Your task to perform on an android device: Search for sushi restaurants on Maps Image 0: 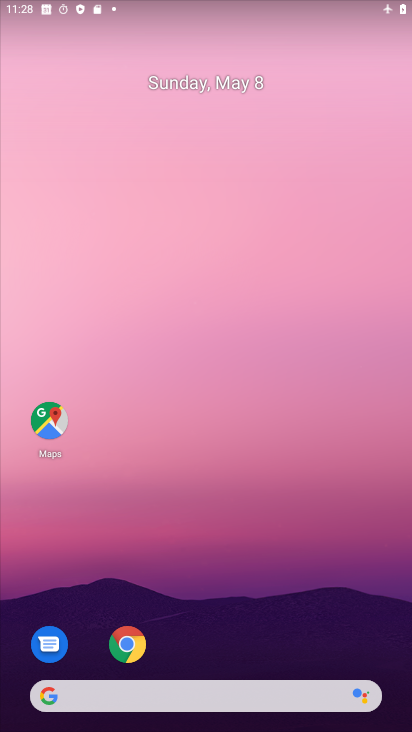
Step 0: drag from (204, 588) to (196, 262)
Your task to perform on an android device: Search for sushi restaurants on Maps Image 1: 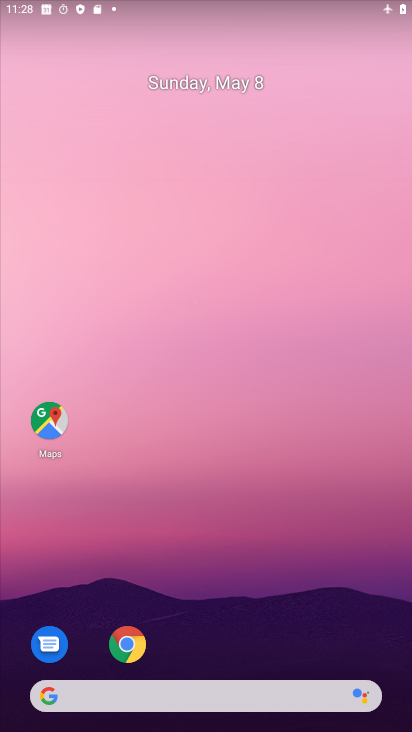
Step 1: click (302, 95)
Your task to perform on an android device: Search for sushi restaurants on Maps Image 2: 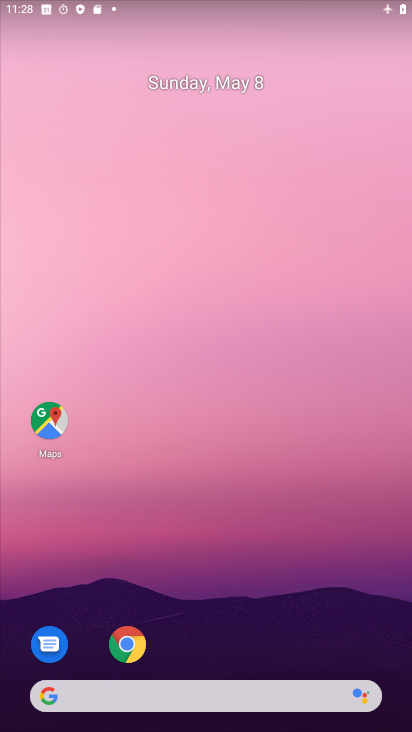
Step 2: drag from (223, 610) to (268, 15)
Your task to perform on an android device: Search for sushi restaurants on Maps Image 3: 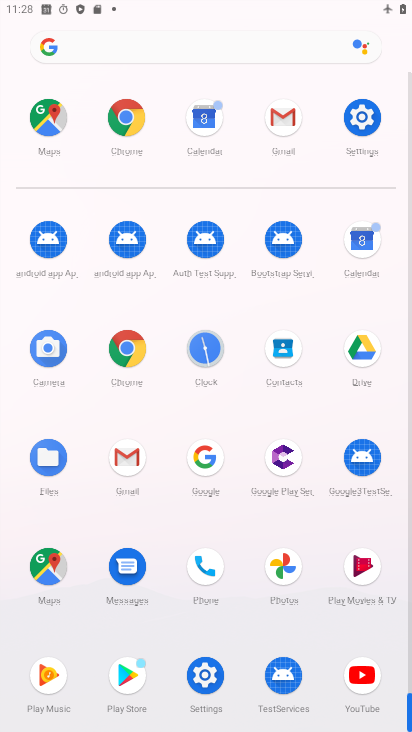
Step 3: click (57, 557)
Your task to perform on an android device: Search for sushi restaurants on Maps Image 4: 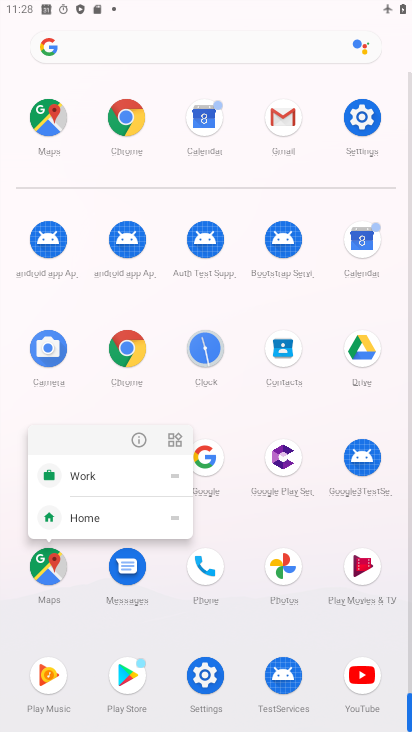
Step 4: click (136, 438)
Your task to perform on an android device: Search for sushi restaurants on Maps Image 5: 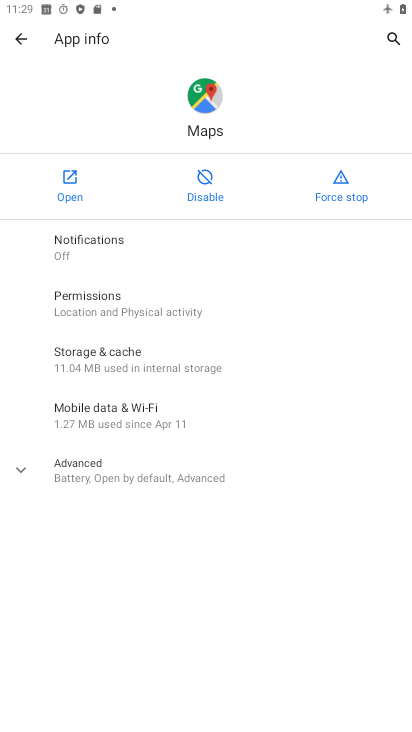
Step 5: click (72, 194)
Your task to perform on an android device: Search for sushi restaurants on Maps Image 6: 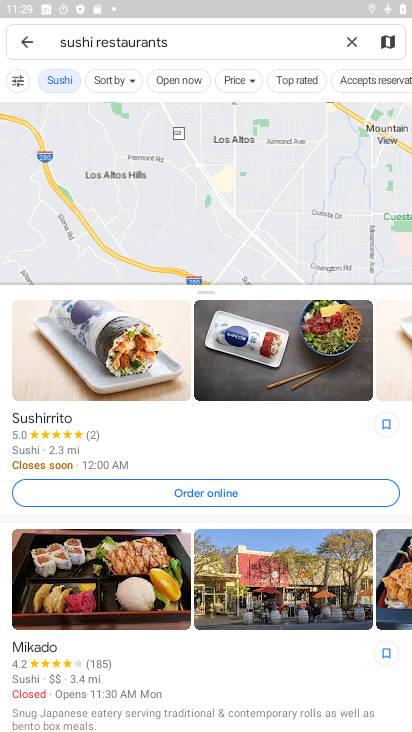
Step 6: task complete